Your task to perform on an android device: Open display settings Image 0: 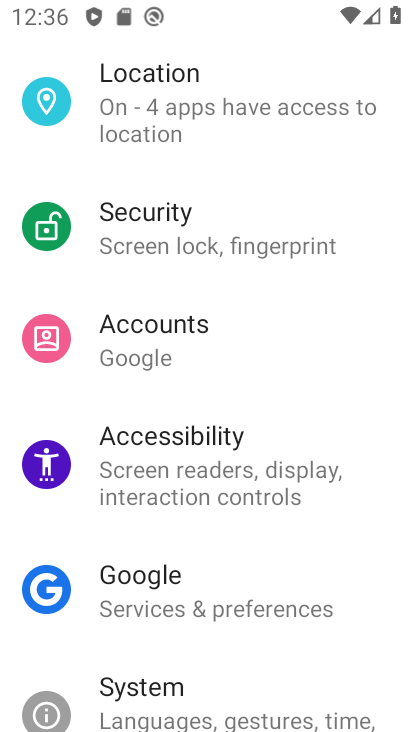
Step 0: drag from (248, 254) to (211, 545)
Your task to perform on an android device: Open display settings Image 1: 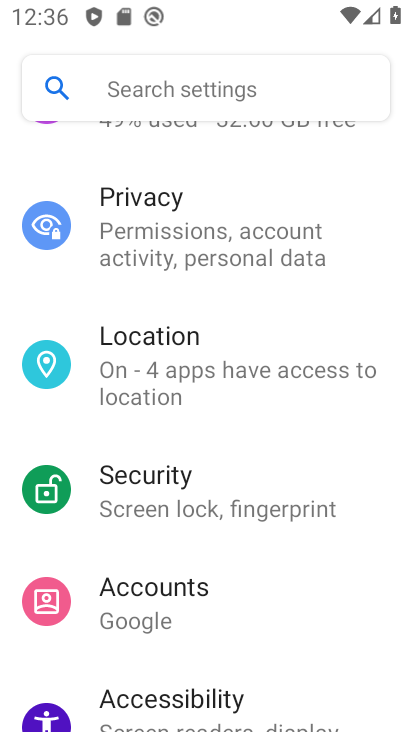
Step 1: drag from (205, 304) to (182, 579)
Your task to perform on an android device: Open display settings Image 2: 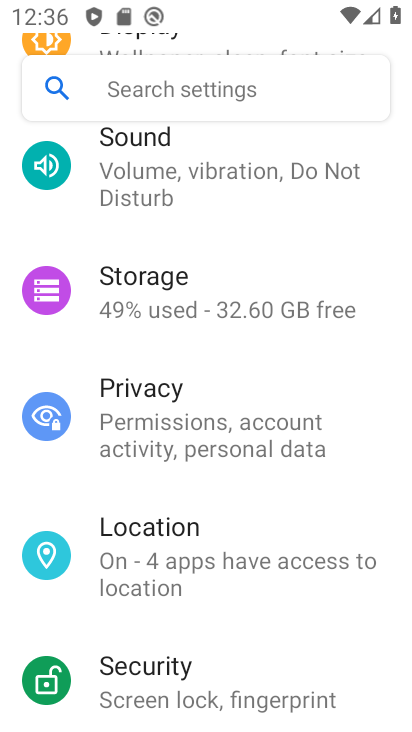
Step 2: drag from (214, 317) to (238, 638)
Your task to perform on an android device: Open display settings Image 3: 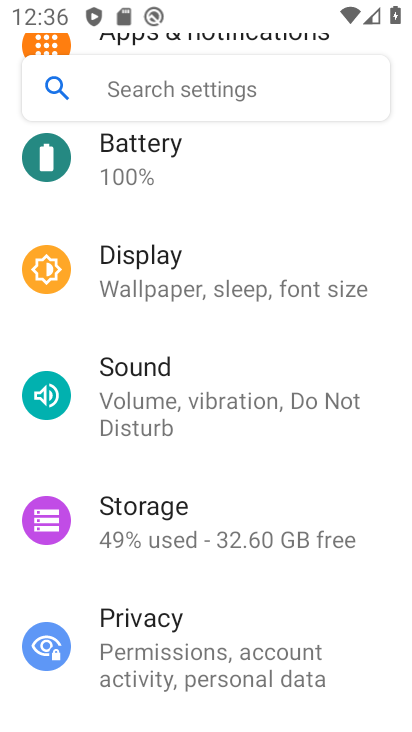
Step 3: drag from (207, 206) to (211, 563)
Your task to perform on an android device: Open display settings Image 4: 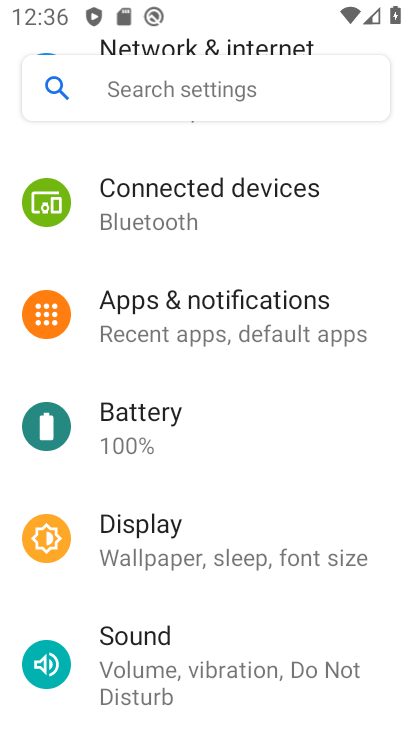
Step 4: click (174, 522)
Your task to perform on an android device: Open display settings Image 5: 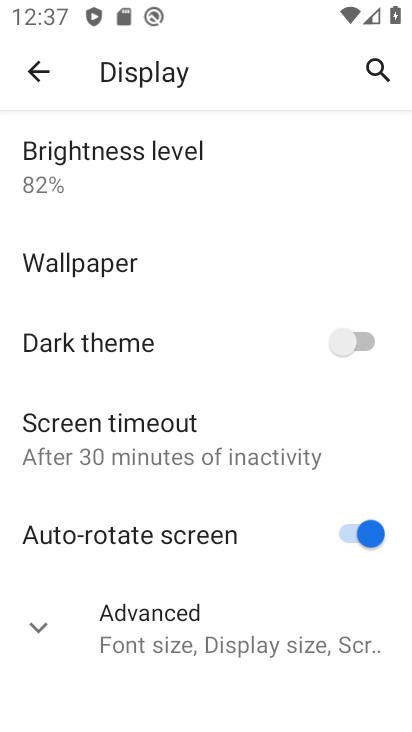
Step 5: task complete